Your task to perform on an android device: Open battery settings Image 0: 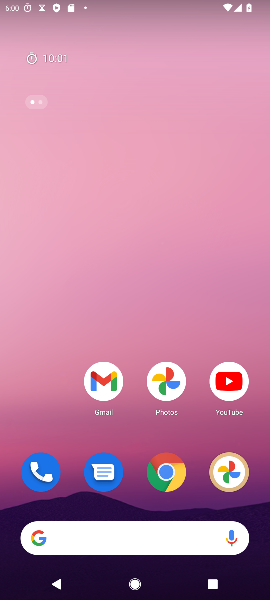
Step 0: drag from (142, 486) to (96, 115)
Your task to perform on an android device: Open battery settings Image 1: 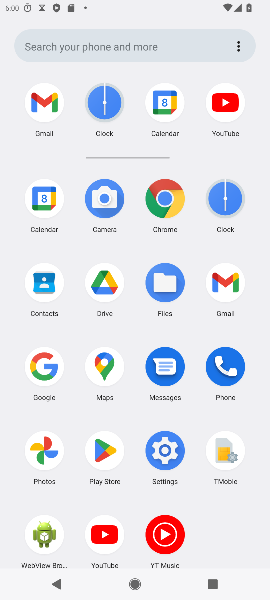
Step 1: click (157, 443)
Your task to perform on an android device: Open battery settings Image 2: 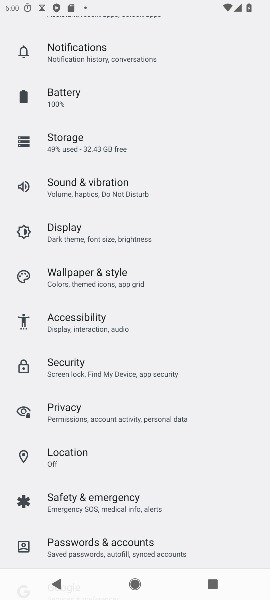
Step 2: click (68, 105)
Your task to perform on an android device: Open battery settings Image 3: 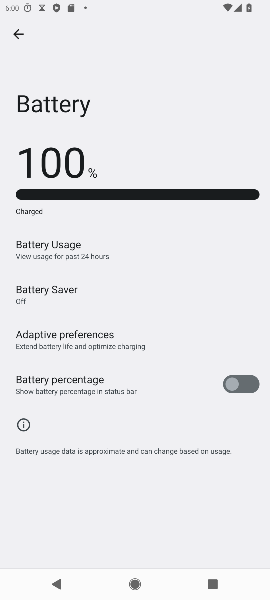
Step 3: task complete